Your task to perform on an android device: Check the news Image 0: 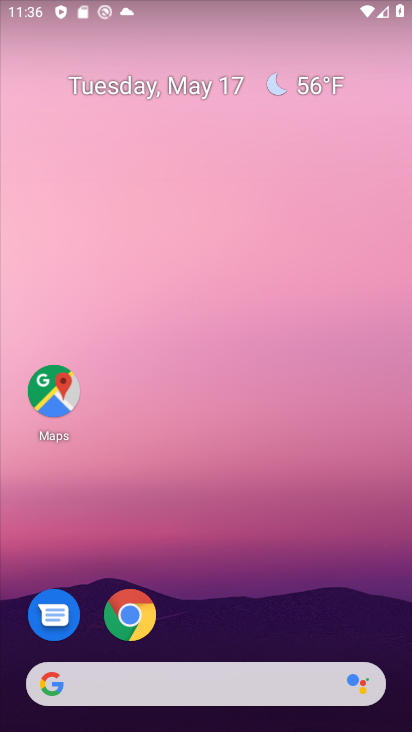
Step 0: click (167, 668)
Your task to perform on an android device: Check the news Image 1: 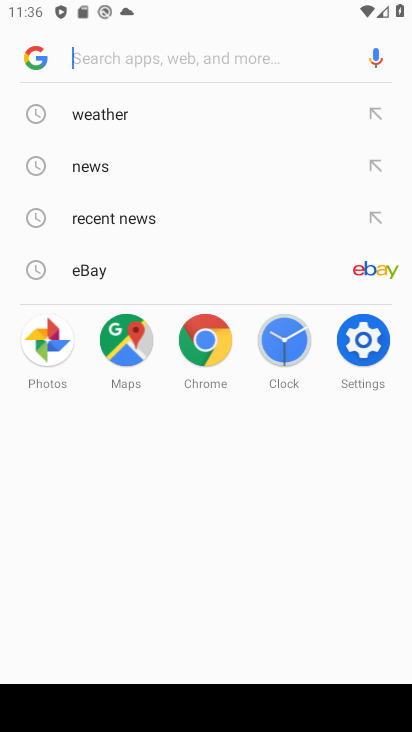
Step 1: click (108, 164)
Your task to perform on an android device: Check the news Image 2: 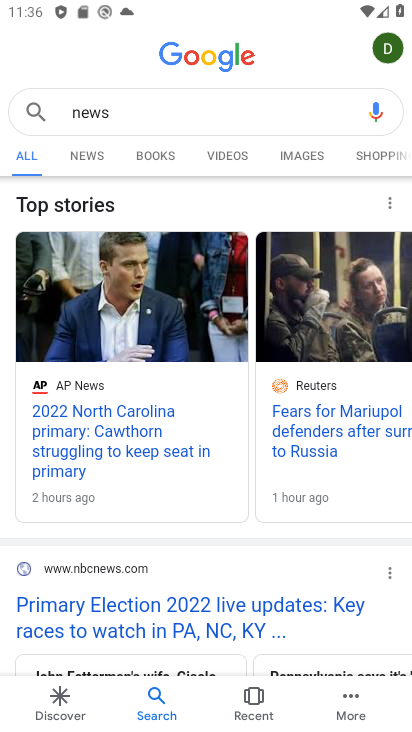
Step 2: click (69, 158)
Your task to perform on an android device: Check the news Image 3: 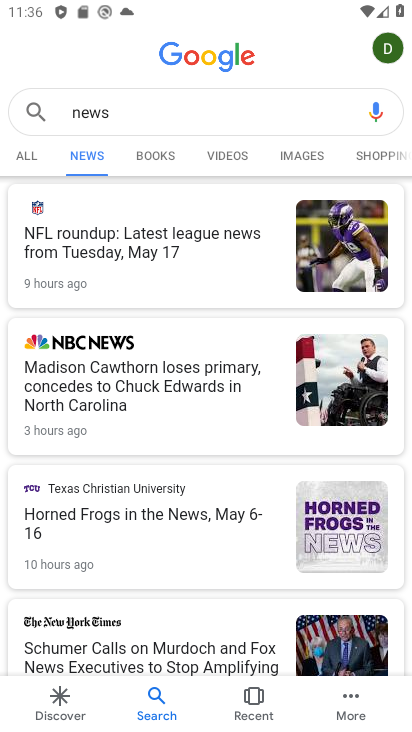
Step 3: task complete